Your task to perform on an android device: Search for vintage wall art on Etsy. Image 0: 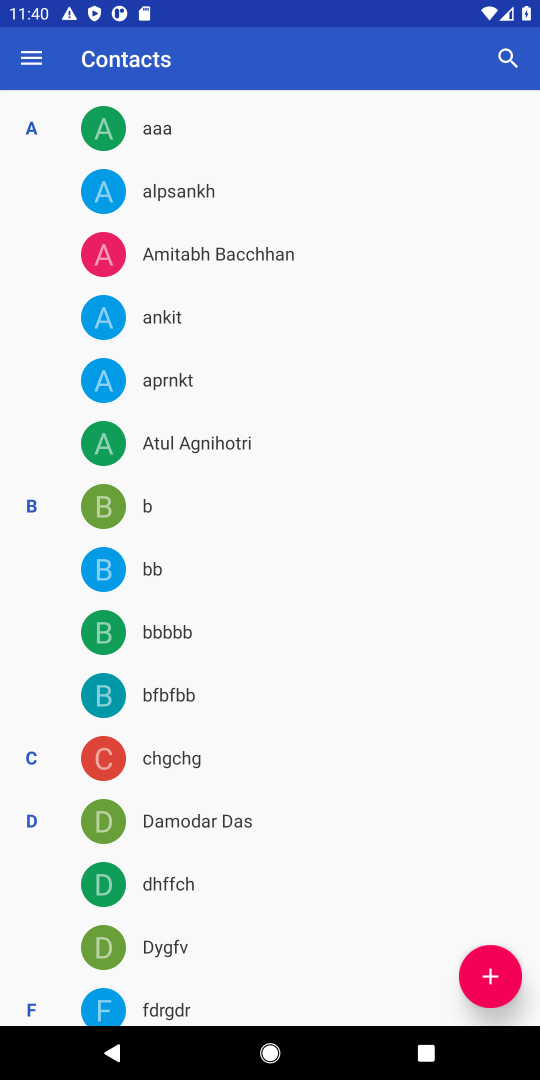
Step 0: press home button
Your task to perform on an android device: Search for vintage wall art on Etsy. Image 1: 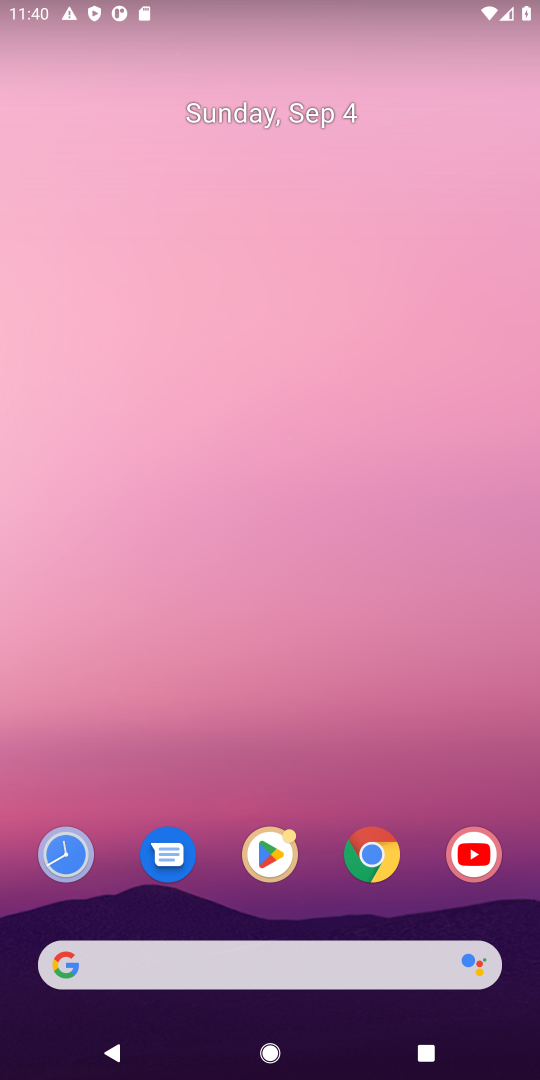
Step 1: click (399, 970)
Your task to perform on an android device: Search for vintage wall art on Etsy. Image 2: 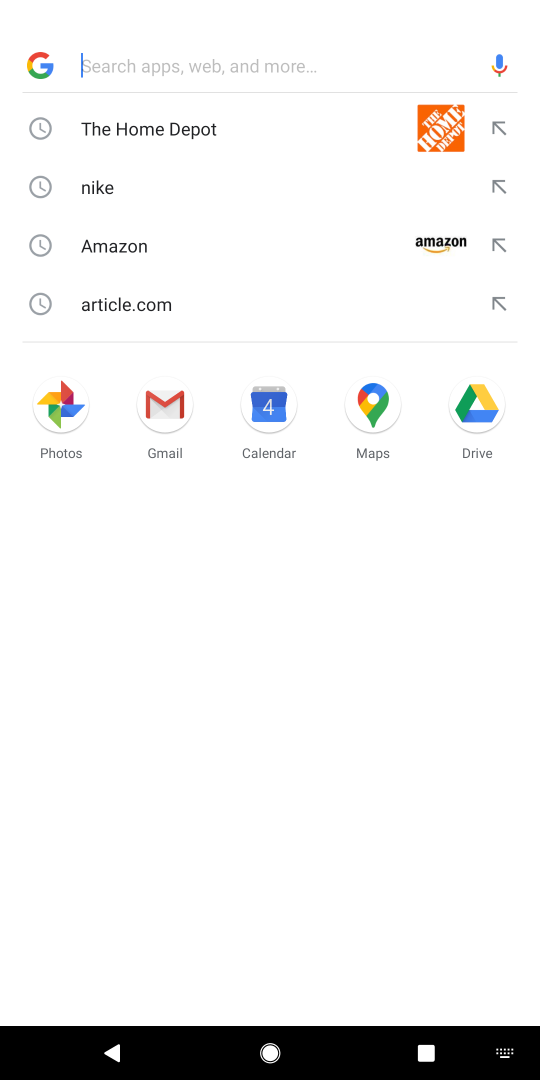
Step 2: press enter
Your task to perform on an android device: Search for vintage wall art on Etsy. Image 3: 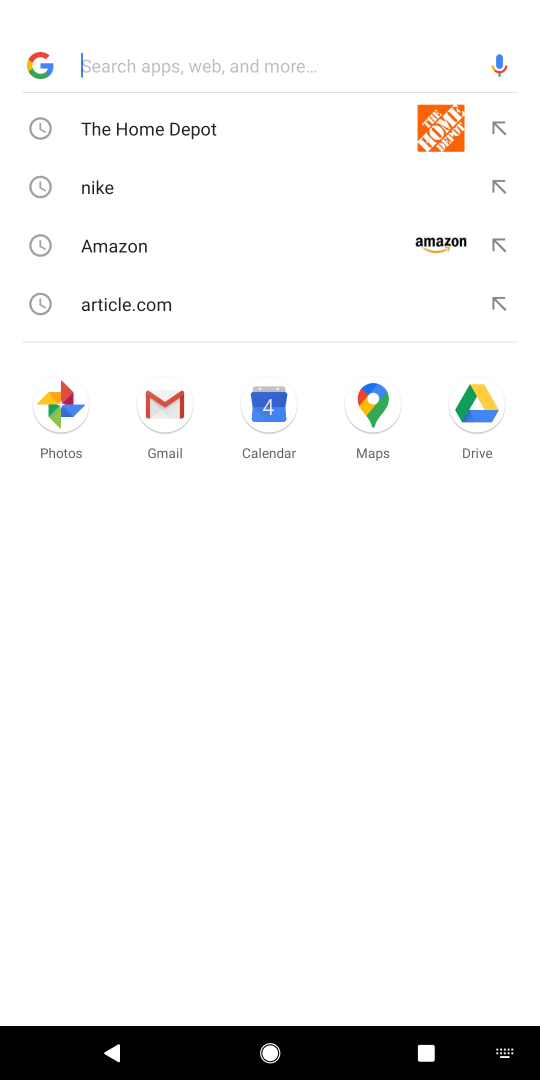
Step 3: type "eysy"
Your task to perform on an android device: Search for vintage wall art on Etsy. Image 4: 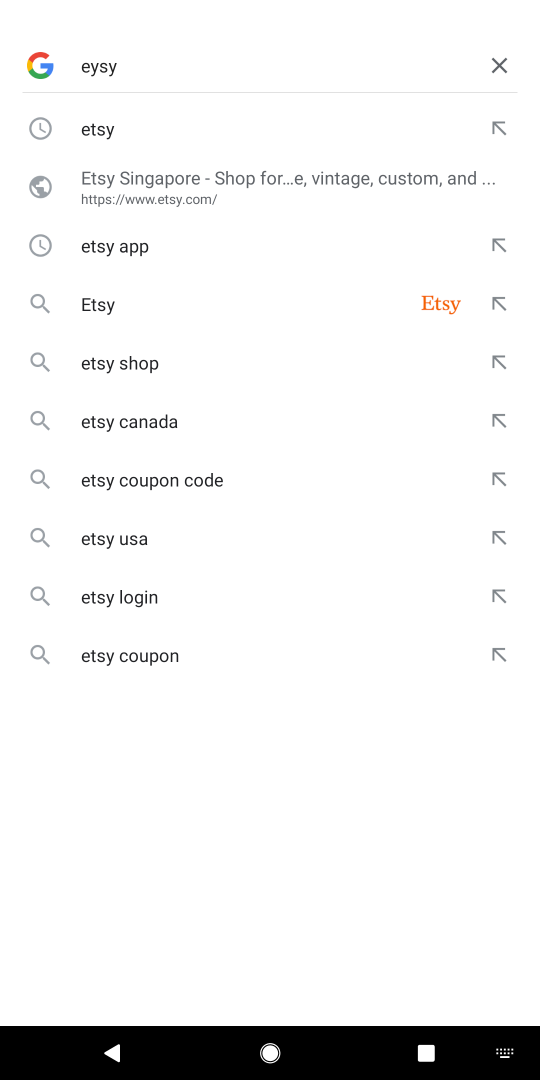
Step 4: click (168, 300)
Your task to perform on an android device: Search for vintage wall art on Etsy. Image 5: 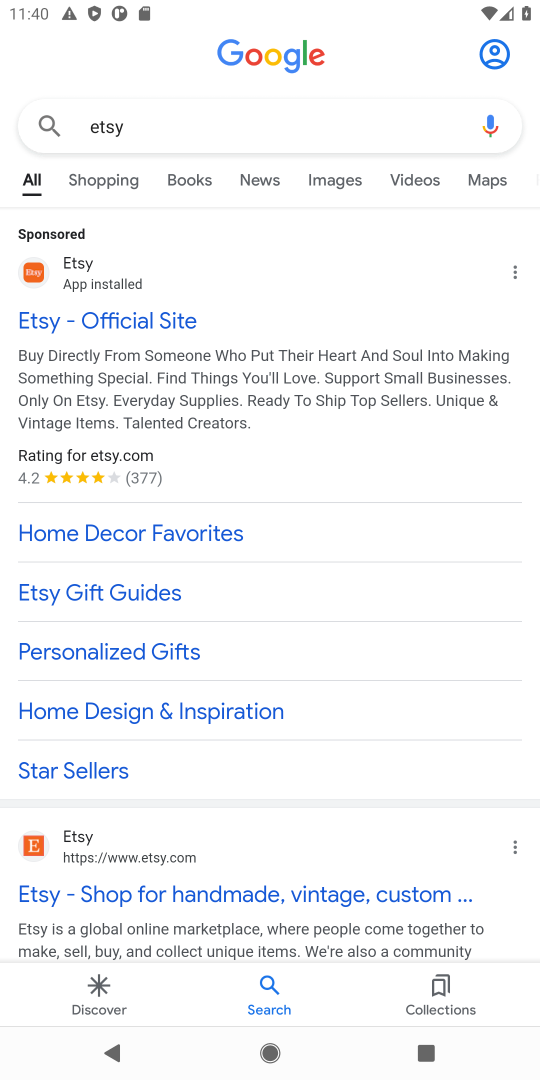
Step 5: click (161, 321)
Your task to perform on an android device: Search for vintage wall art on Etsy. Image 6: 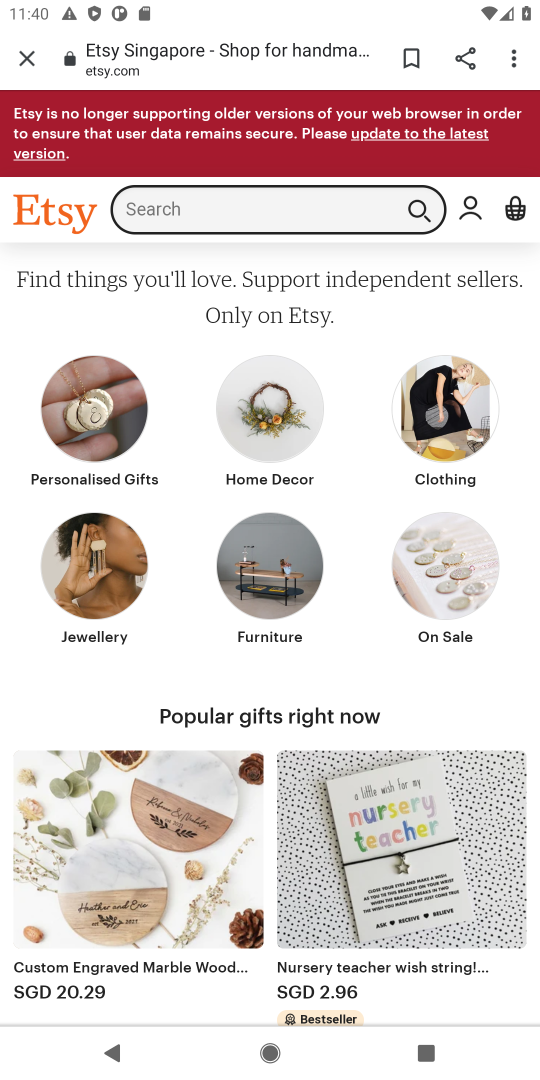
Step 6: click (311, 210)
Your task to perform on an android device: Search for vintage wall art on Etsy. Image 7: 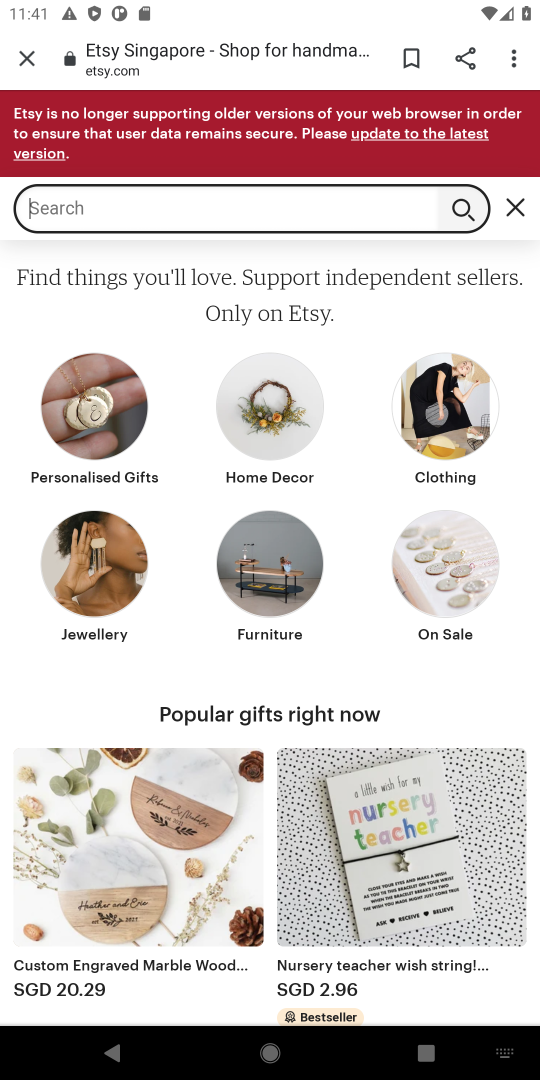
Step 7: type "vintage wall art"
Your task to perform on an android device: Search for vintage wall art on Etsy. Image 8: 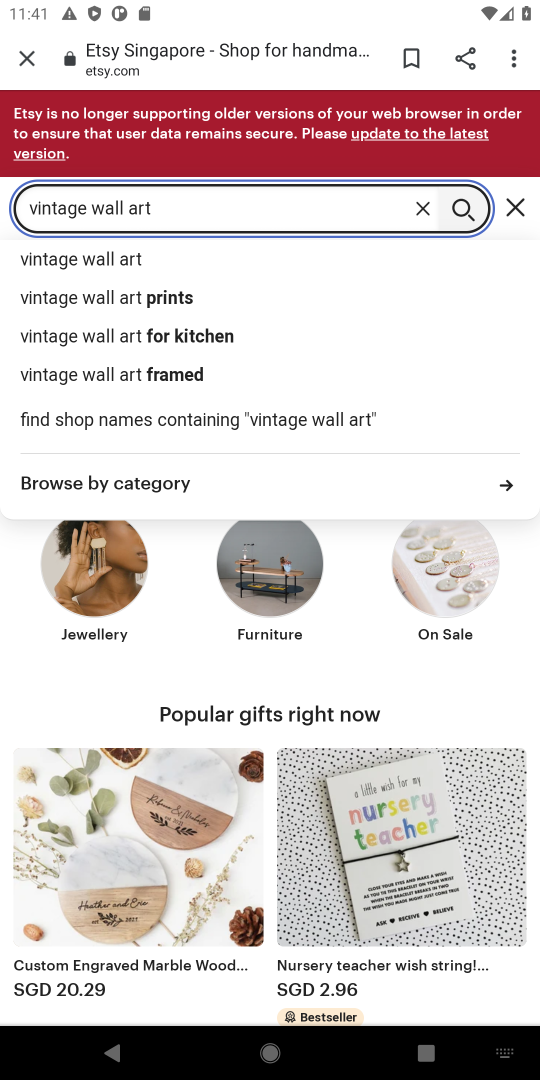
Step 8: click (131, 260)
Your task to perform on an android device: Search for vintage wall art on Etsy. Image 9: 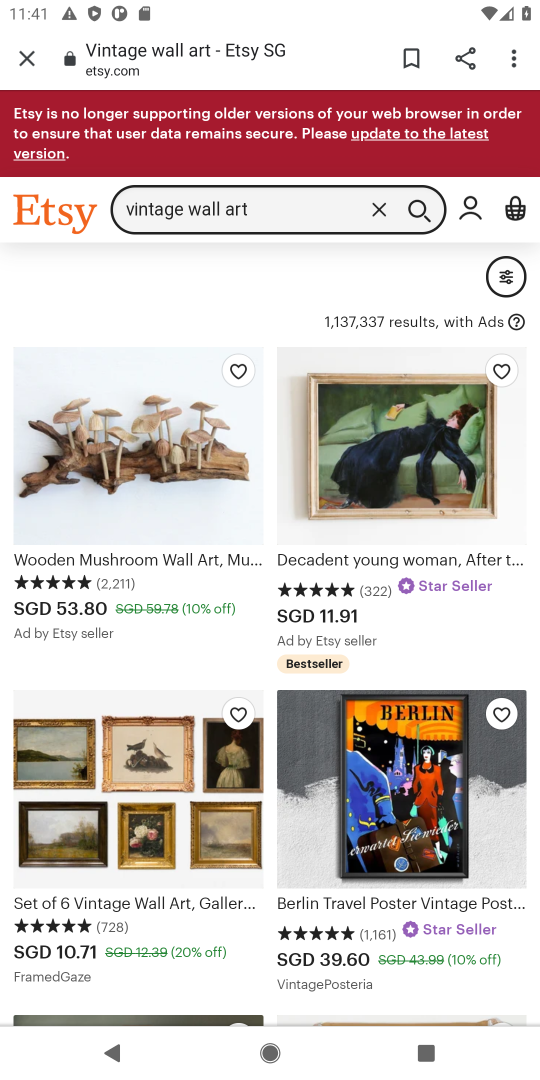
Step 9: task complete